Your task to perform on an android device: change the clock display to show seconds Image 0: 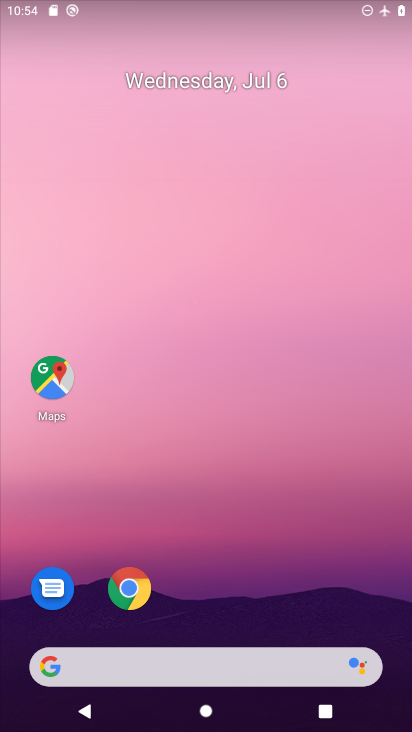
Step 0: drag from (269, 612) to (244, 172)
Your task to perform on an android device: change the clock display to show seconds Image 1: 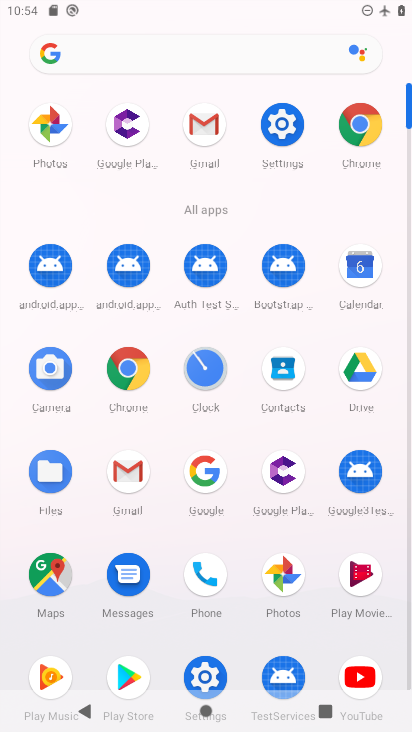
Step 1: click (204, 382)
Your task to perform on an android device: change the clock display to show seconds Image 2: 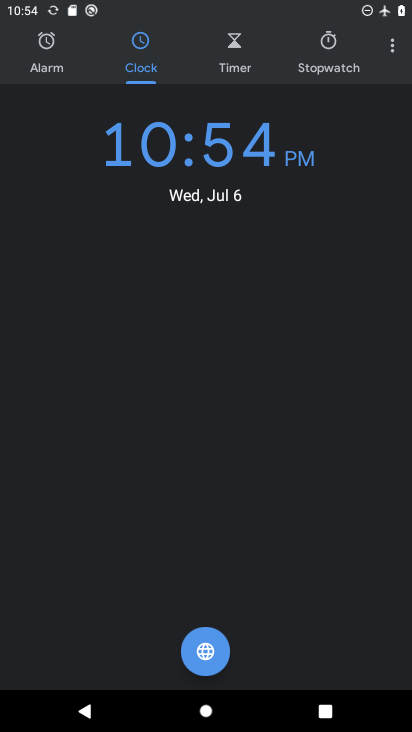
Step 2: click (397, 54)
Your task to perform on an android device: change the clock display to show seconds Image 3: 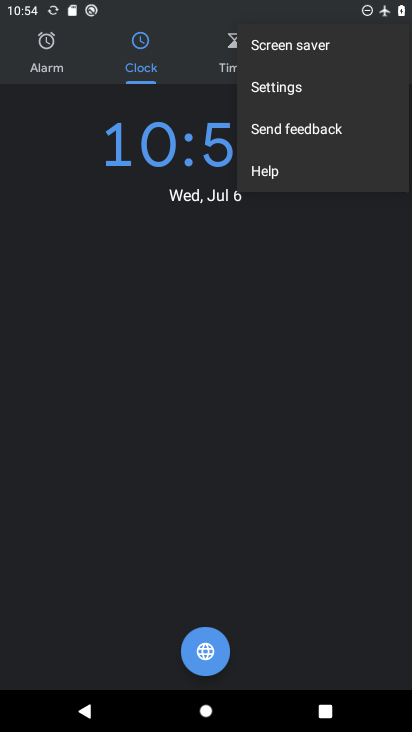
Step 3: click (356, 89)
Your task to perform on an android device: change the clock display to show seconds Image 4: 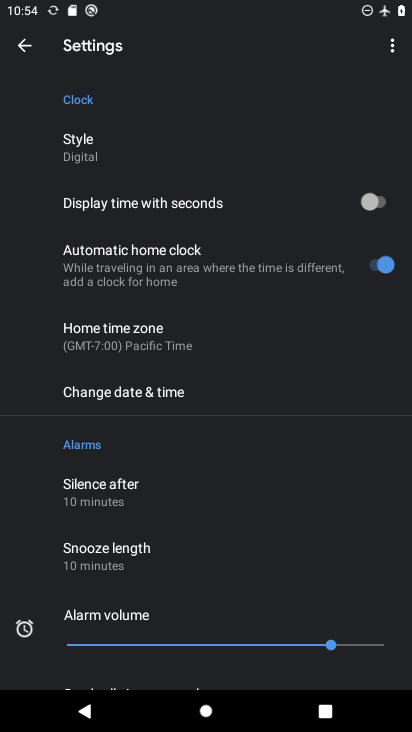
Step 4: click (388, 214)
Your task to perform on an android device: change the clock display to show seconds Image 5: 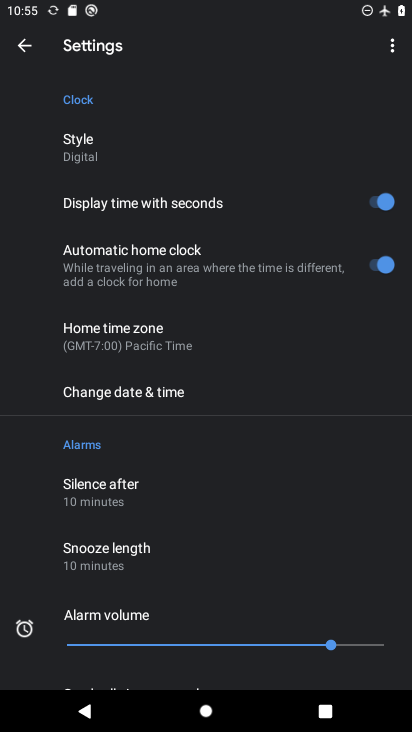
Step 5: task complete